Your task to perform on an android device: open device folders in google photos Image 0: 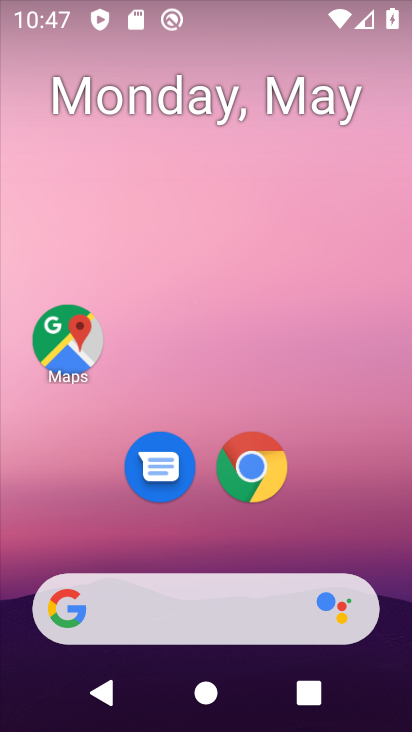
Step 0: drag from (321, 529) to (321, 34)
Your task to perform on an android device: open device folders in google photos Image 1: 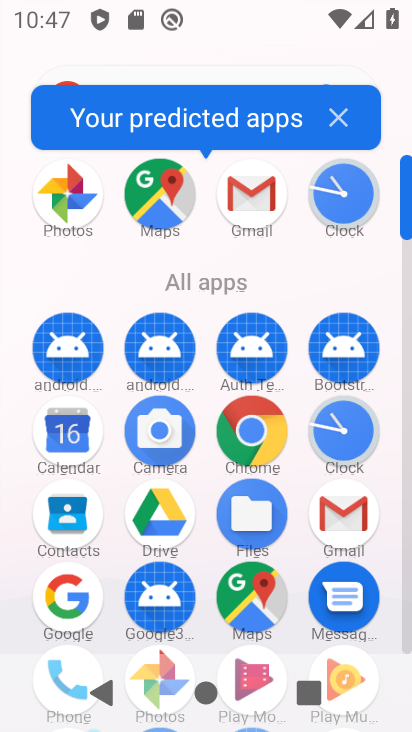
Step 1: click (77, 215)
Your task to perform on an android device: open device folders in google photos Image 2: 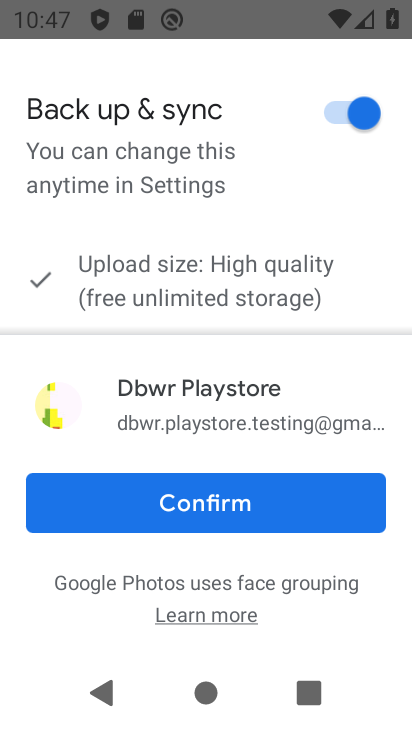
Step 2: click (196, 495)
Your task to perform on an android device: open device folders in google photos Image 3: 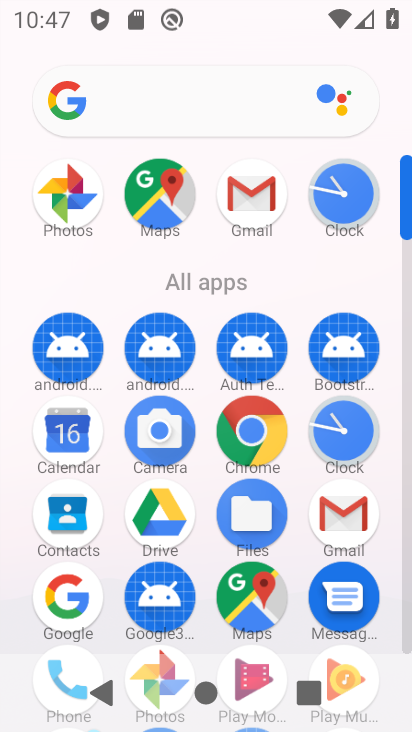
Step 3: click (82, 202)
Your task to perform on an android device: open device folders in google photos Image 4: 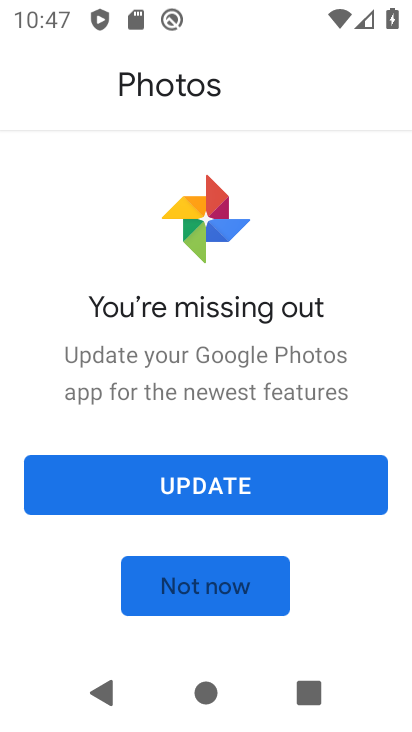
Step 4: click (199, 498)
Your task to perform on an android device: open device folders in google photos Image 5: 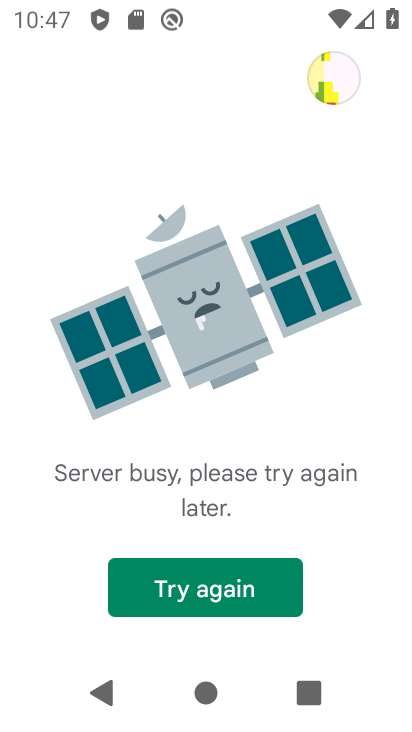
Step 5: click (212, 600)
Your task to perform on an android device: open device folders in google photos Image 6: 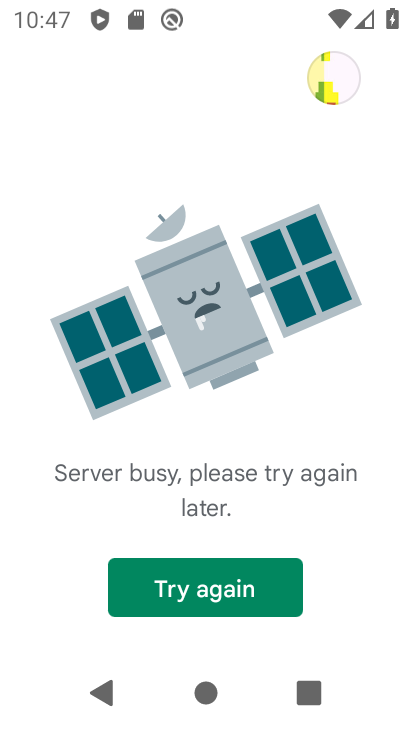
Step 6: task complete